Your task to perform on an android device: What's the weather? Image 0: 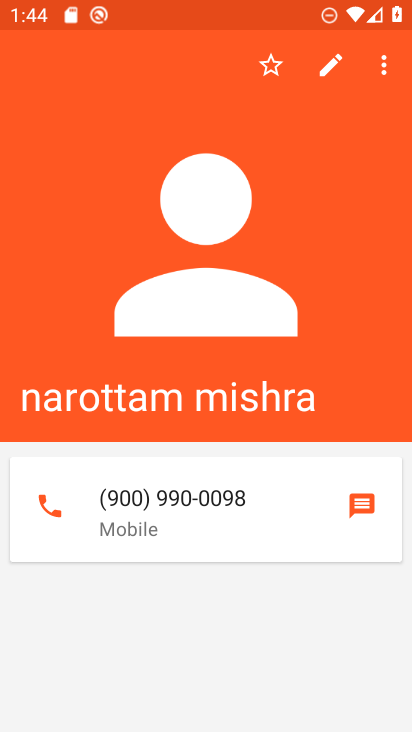
Step 0: press home button
Your task to perform on an android device: What's the weather? Image 1: 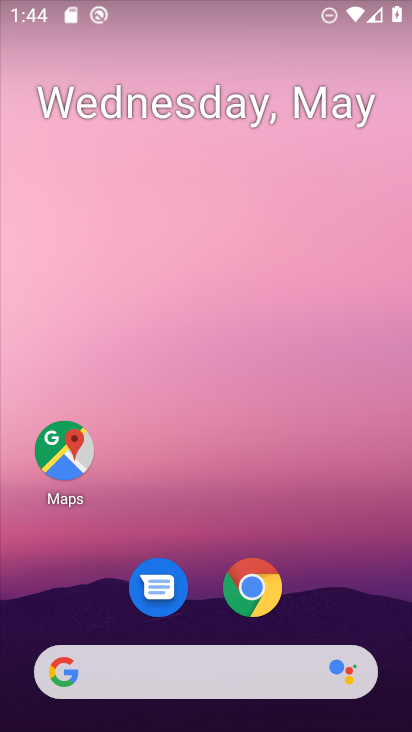
Step 1: click (208, 661)
Your task to perform on an android device: What's the weather? Image 2: 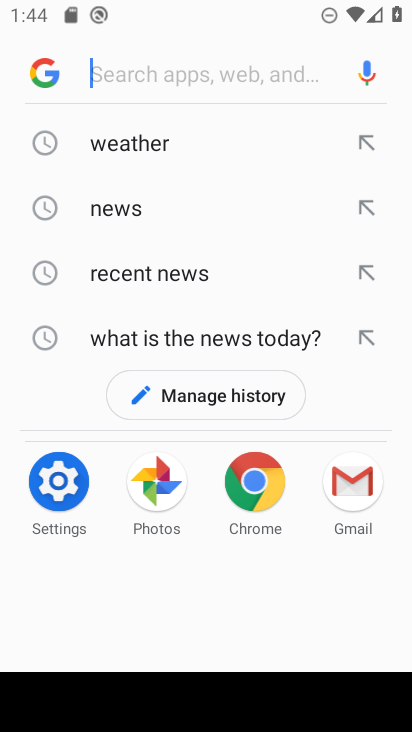
Step 2: click (150, 76)
Your task to perform on an android device: What's the weather? Image 3: 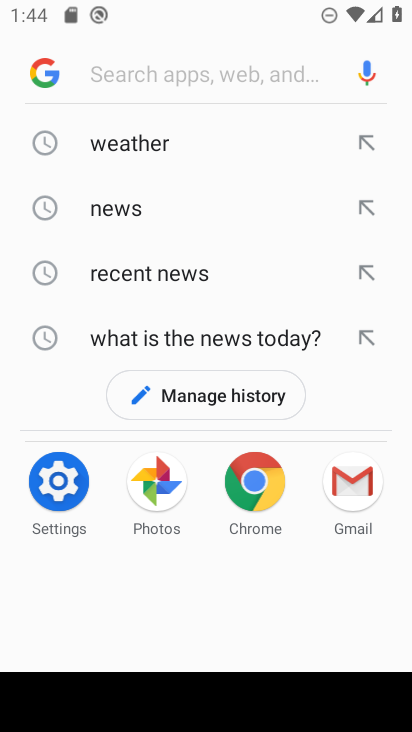
Step 3: click (185, 334)
Your task to perform on an android device: What's the weather? Image 4: 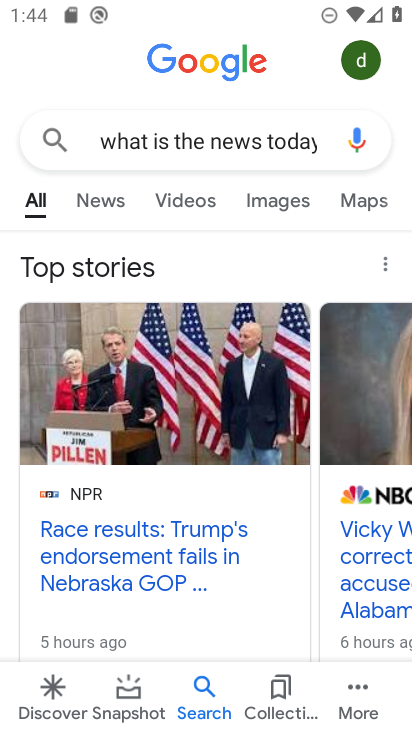
Step 4: click (315, 146)
Your task to perform on an android device: What's the weather? Image 5: 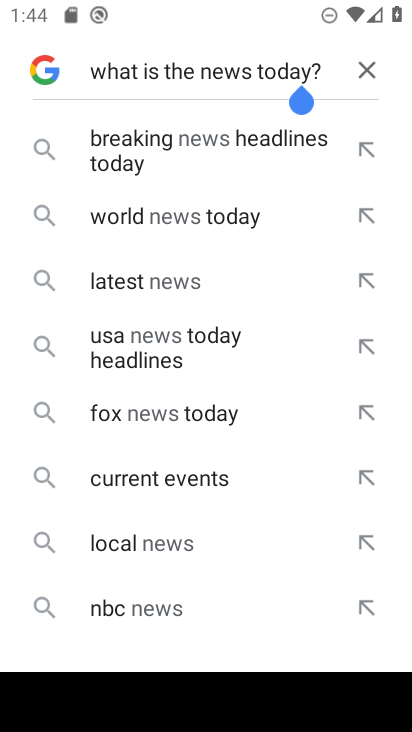
Step 5: click (372, 76)
Your task to perform on an android device: What's the weather? Image 6: 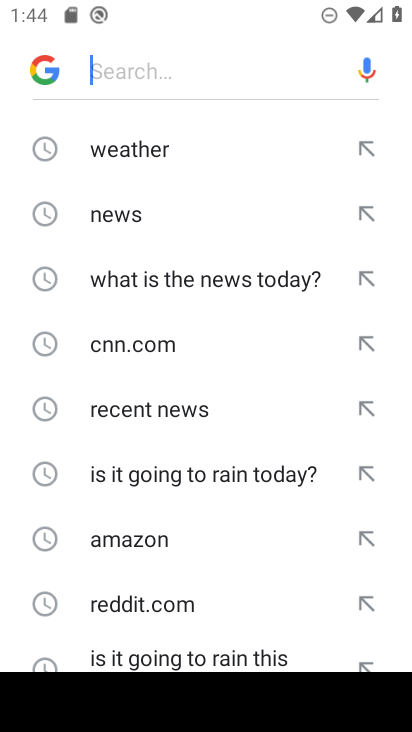
Step 6: click (147, 158)
Your task to perform on an android device: What's the weather? Image 7: 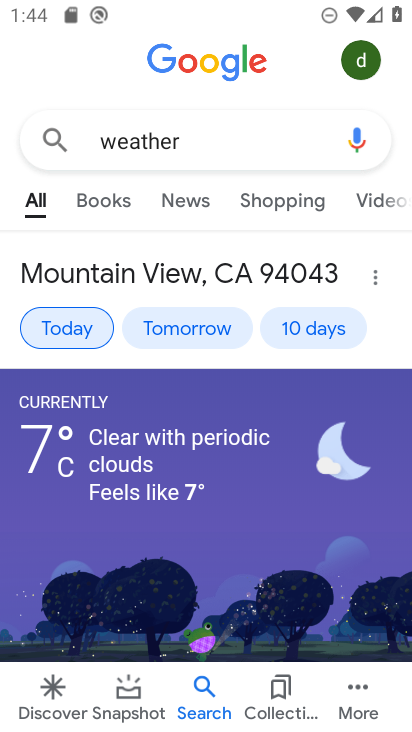
Step 7: task complete